Your task to perform on an android device: Open privacy settings Image 0: 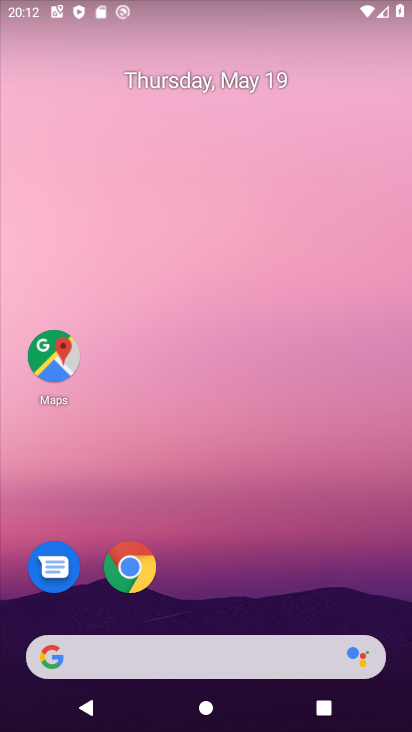
Step 0: drag from (197, 593) to (217, 192)
Your task to perform on an android device: Open privacy settings Image 1: 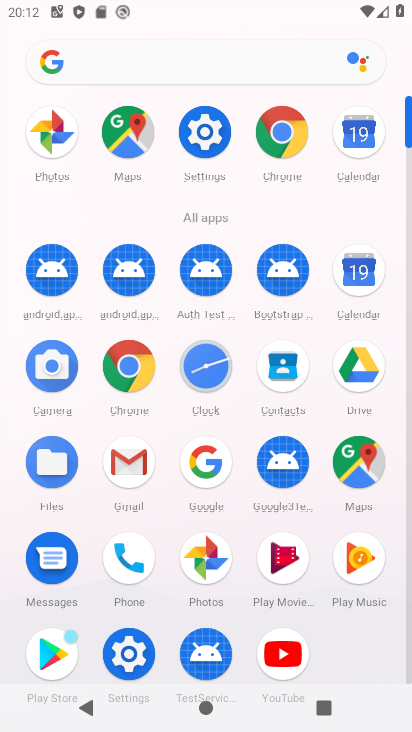
Step 1: click (146, 654)
Your task to perform on an android device: Open privacy settings Image 2: 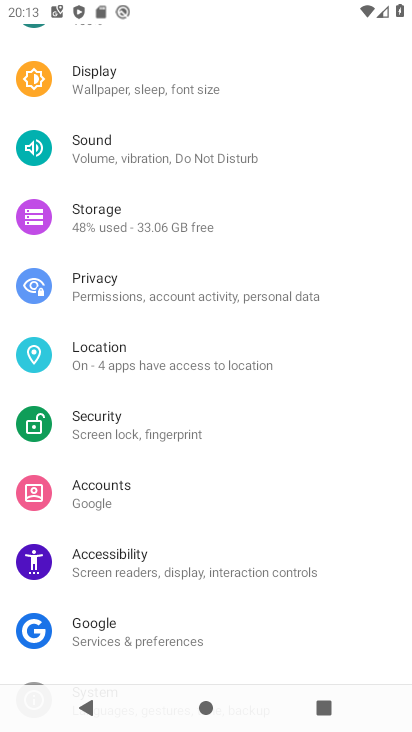
Step 2: click (157, 295)
Your task to perform on an android device: Open privacy settings Image 3: 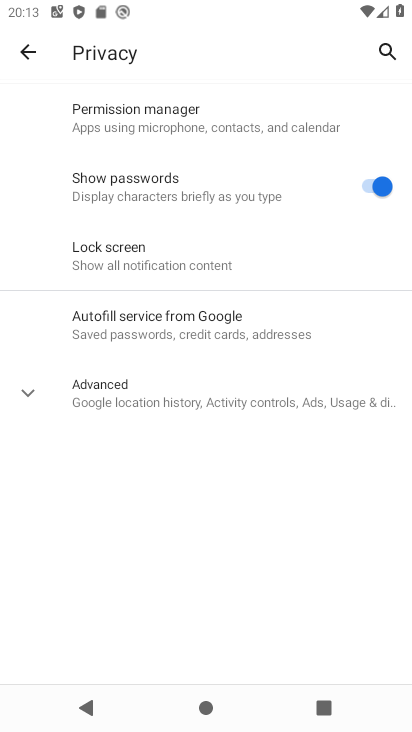
Step 3: task complete